Your task to perform on an android device: delete a single message in the gmail app Image 0: 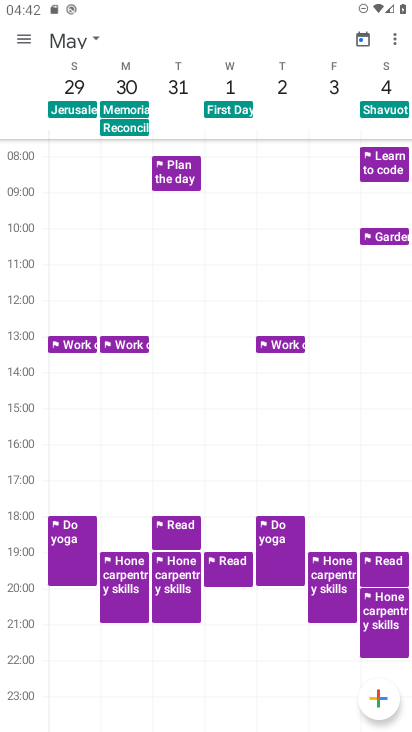
Step 0: press home button
Your task to perform on an android device: delete a single message in the gmail app Image 1: 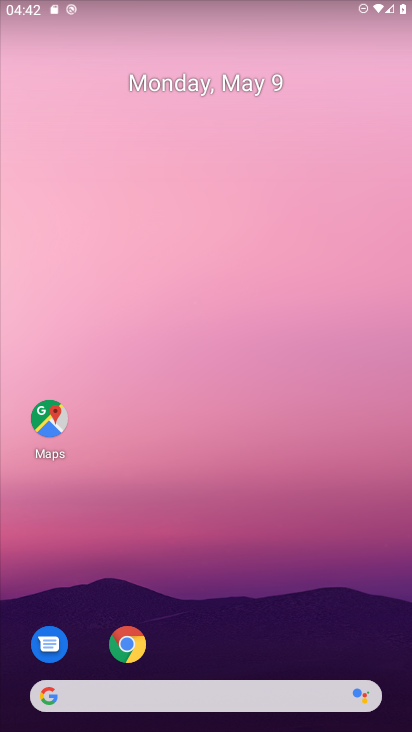
Step 1: drag from (278, 563) to (307, 238)
Your task to perform on an android device: delete a single message in the gmail app Image 2: 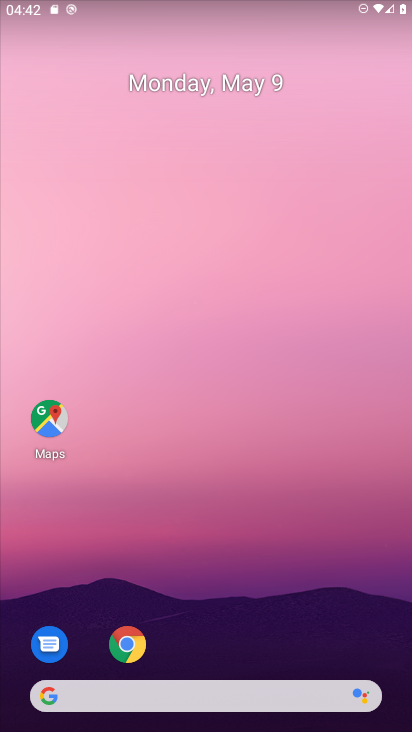
Step 2: drag from (287, 619) to (325, 194)
Your task to perform on an android device: delete a single message in the gmail app Image 3: 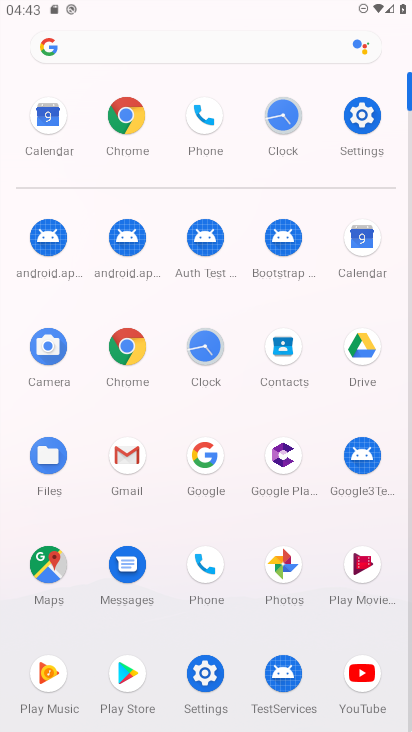
Step 3: click (120, 461)
Your task to perform on an android device: delete a single message in the gmail app Image 4: 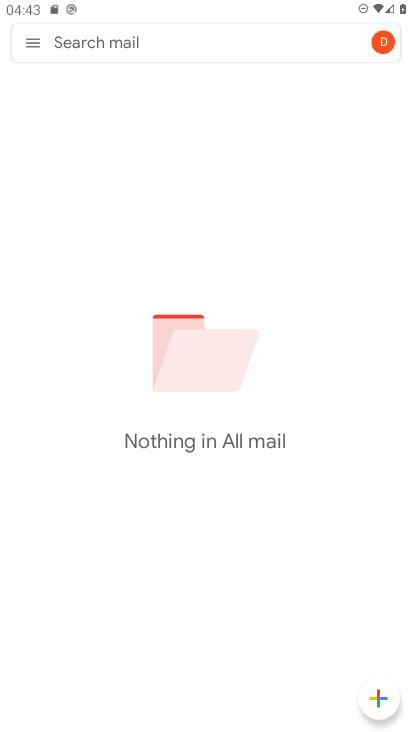
Step 4: click (37, 39)
Your task to perform on an android device: delete a single message in the gmail app Image 5: 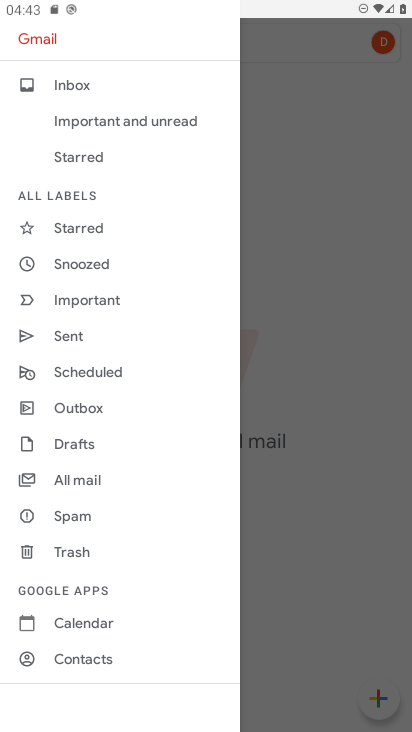
Step 5: click (85, 475)
Your task to perform on an android device: delete a single message in the gmail app Image 6: 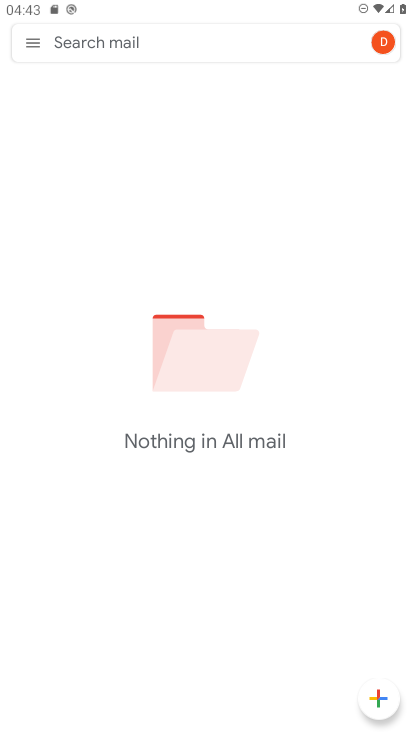
Step 6: task complete